Your task to perform on an android device: add a contact Image 0: 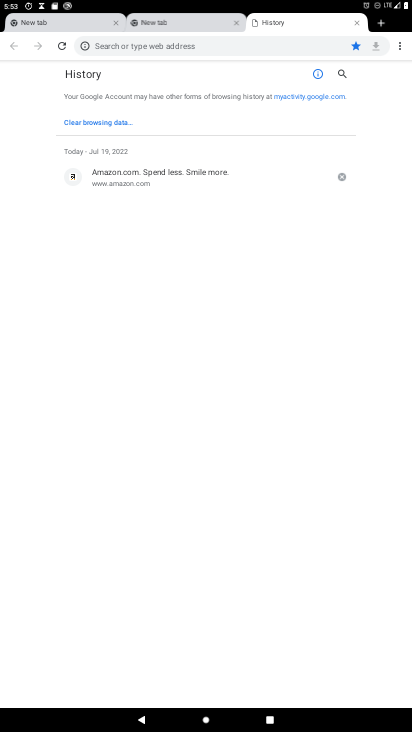
Step 0: press home button
Your task to perform on an android device: add a contact Image 1: 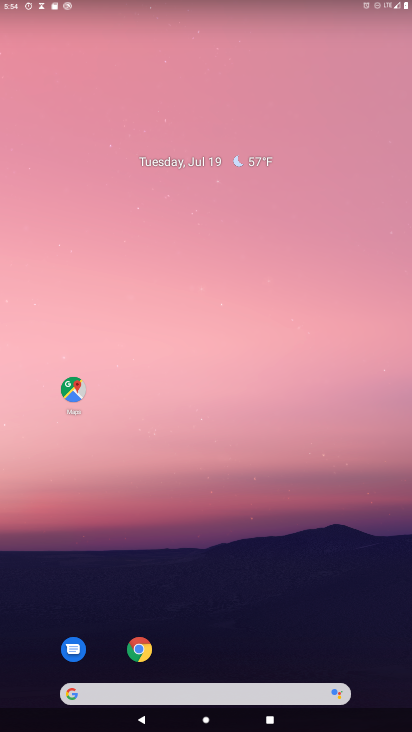
Step 1: drag from (172, 520) to (159, 107)
Your task to perform on an android device: add a contact Image 2: 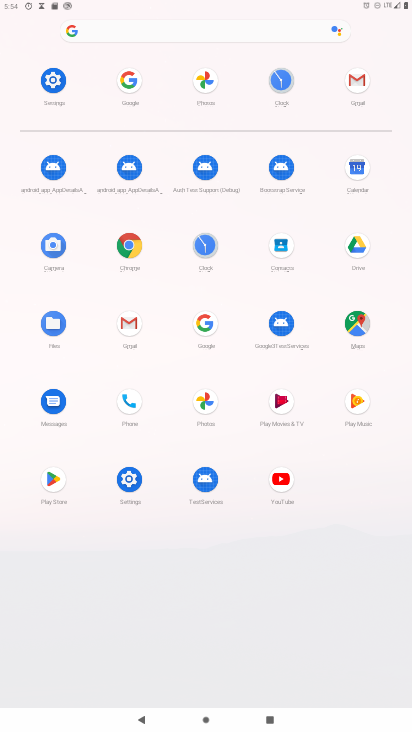
Step 2: click (274, 259)
Your task to perform on an android device: add a contact Image 3: 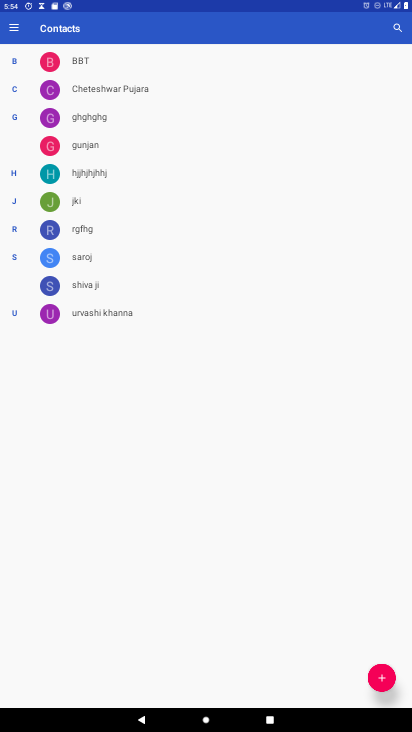
Step 3: click (386, 674)
Your task to perform on an android device: add a contact Image 4: 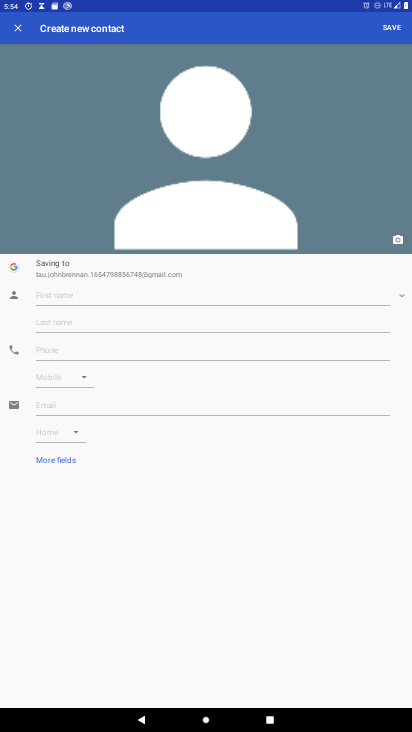
Step 4: click (143, 290)
Your task to perform on an android device: add a contact Image 5: 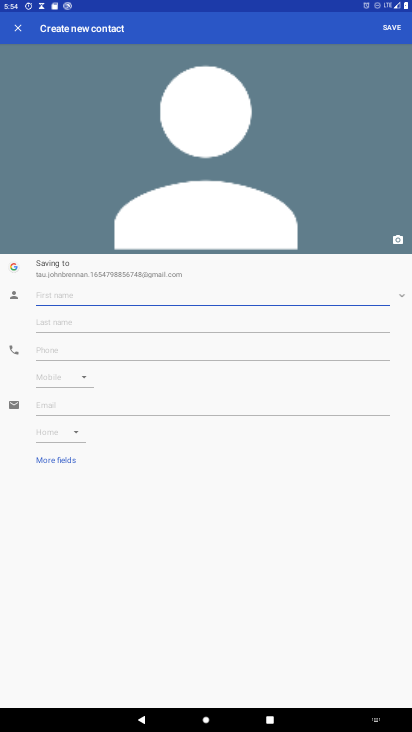
Step 5: type "Simran"
Your task to perform on an android device: add a contact Image 6: 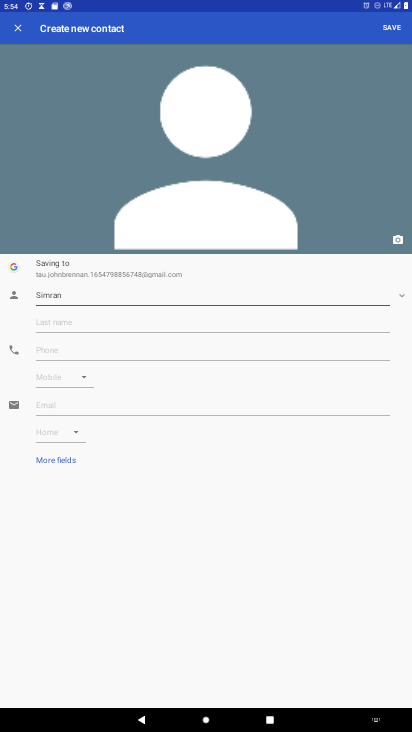
Step 6: click (77, 340)
Your task to perform on an android device: add a contact Image 7: 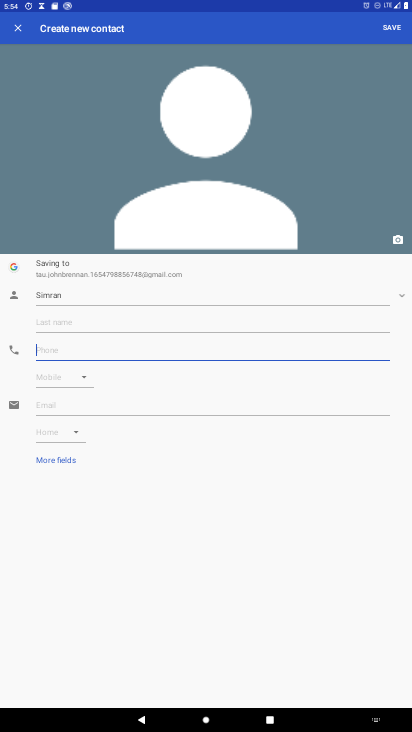
Step 7: type "7887788788"
Your task to perform on an android device: add a contact Image 8: 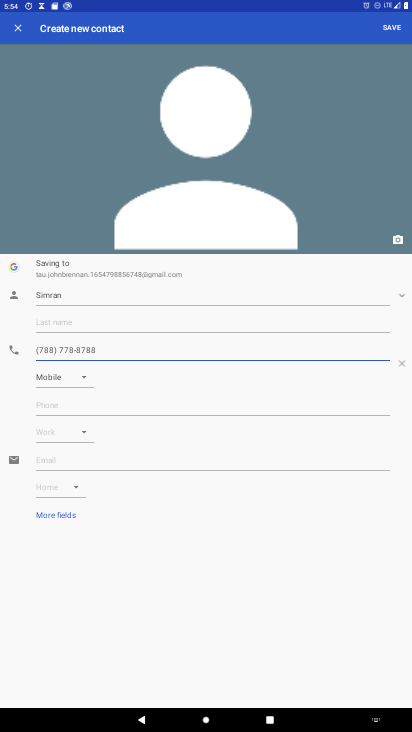
Step 8: click (389, 27)
Your task to perform on an android device: add a contact Image 9: 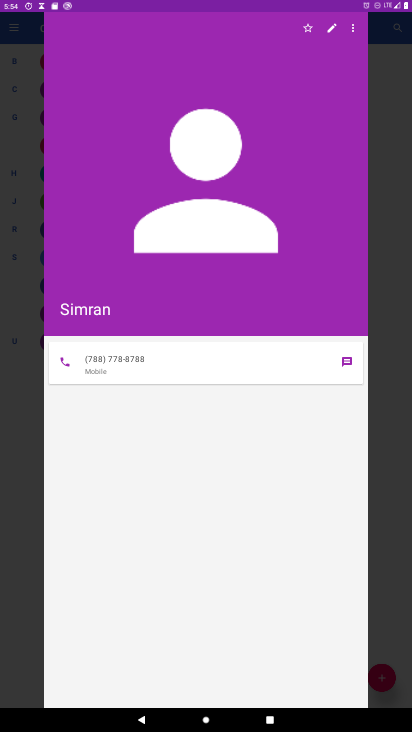
Step 9: task complete